Your task to perform on an android device: add a contact in the contacts app Image 0: 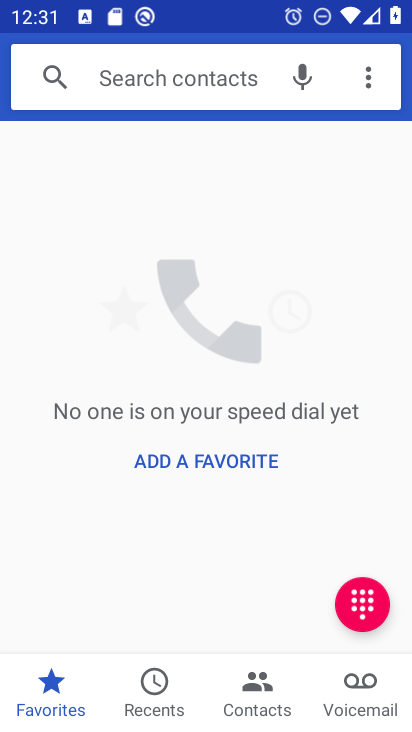
Step 0: press home button
Your task to perform on an android device: add a contact in the contacts app Image 1: 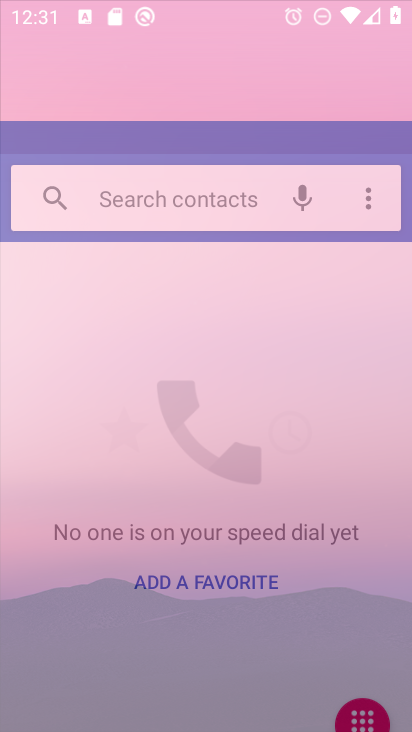
Step 1: click (178, 588)
Your task to perform on an android device: add a contact in the contacts app Image 2: 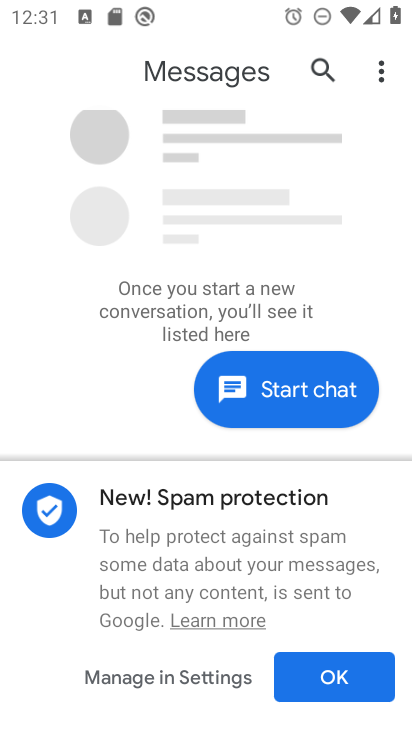
Step 2: press home button
Your task to perform on an android device: add a contact in the contacts app Image 3: 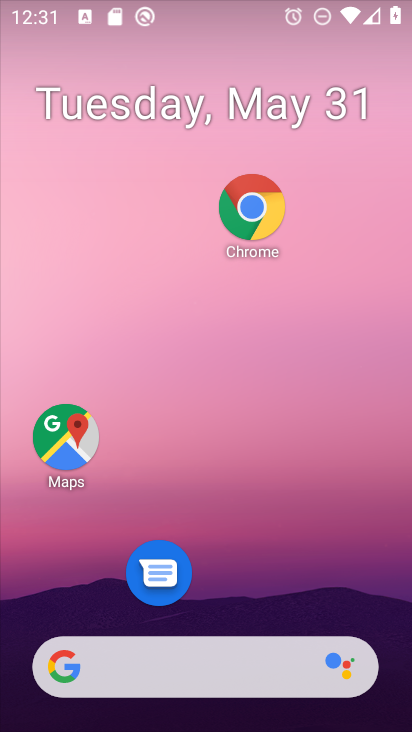
Step 3: drag from (204, 634) to (262, 42)
Your task to perform on an android device: add a contact in the contacts app Image 4: 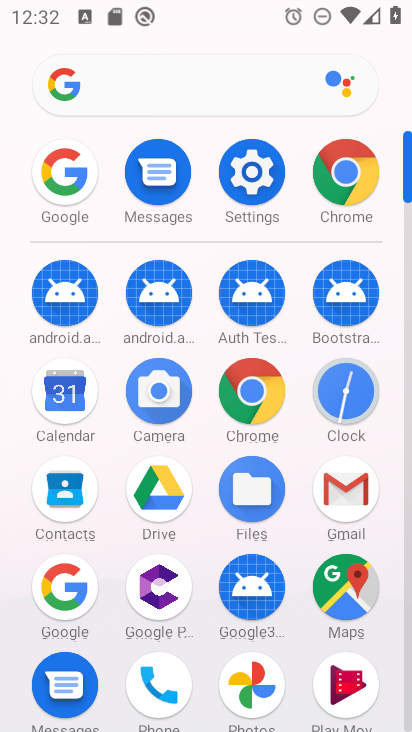
Step 4: click (59, 493)
Your task to perform on an android device: add a contact in the contacts app Image 5: 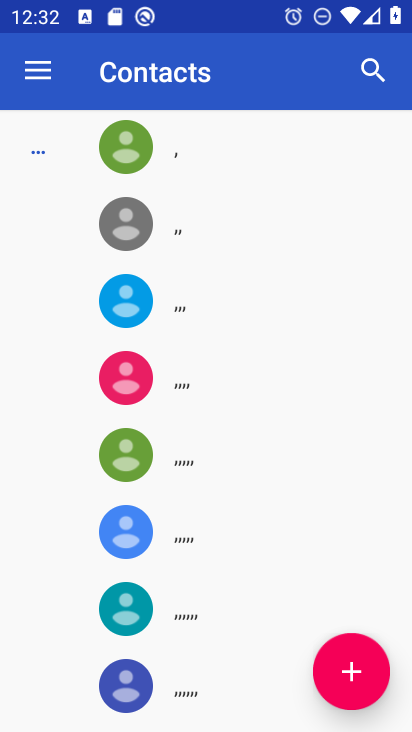
Step 5: click (367, 665)
Your task to perform on an android device: add a contact in the contacts app Image 6: 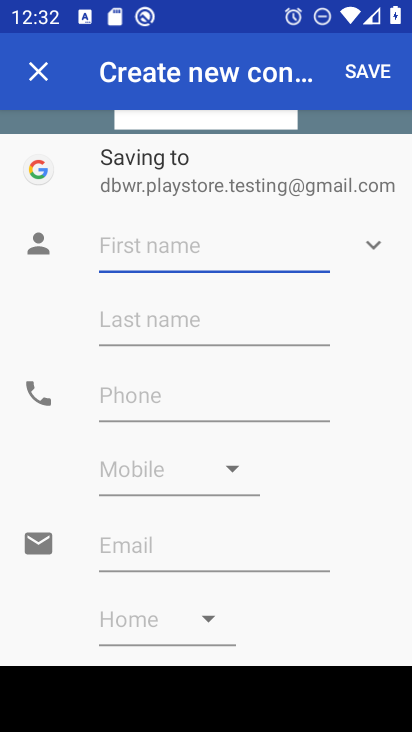
Step 6: type "ugigfgi"
Your task to perform on an android device: add a contact in the contacts app Image 7: 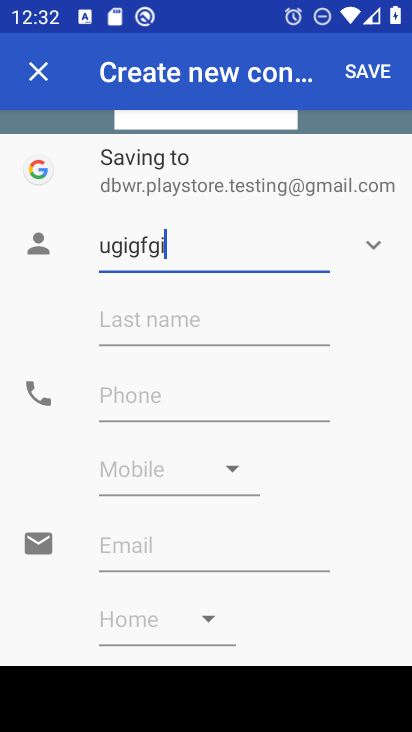
Step 7: click (235, 419)
Your task to perform on an android device: add a contact in the contacts app Image 8: 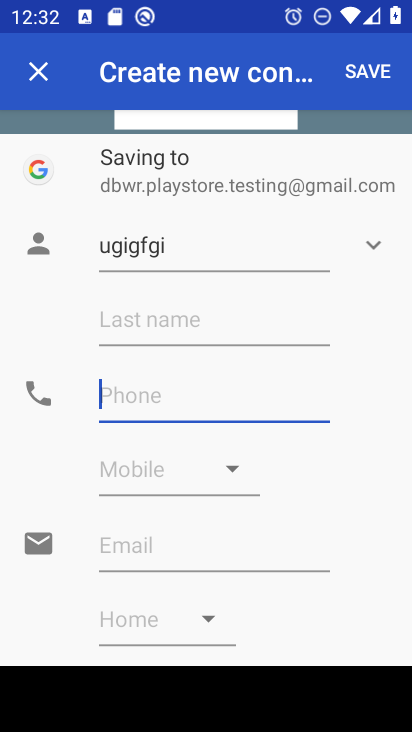
Step 8: type "76875756"
Your task to perform on an android device: add a contact in the contacts app Image 9: 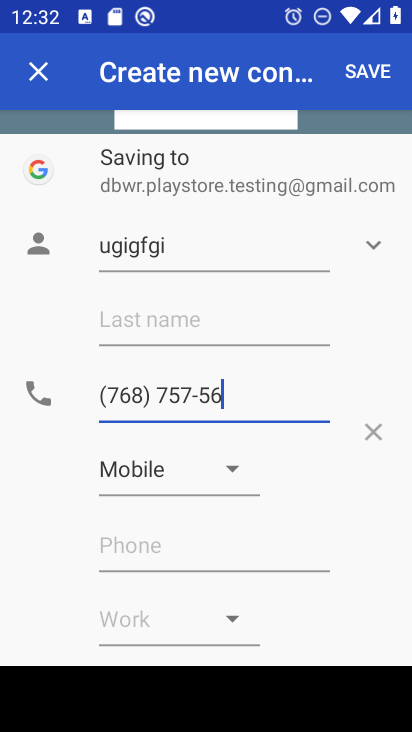
Step 9: click (353, 97)
Your task to perform on an android device: add a contact in the contacts app Image 10: 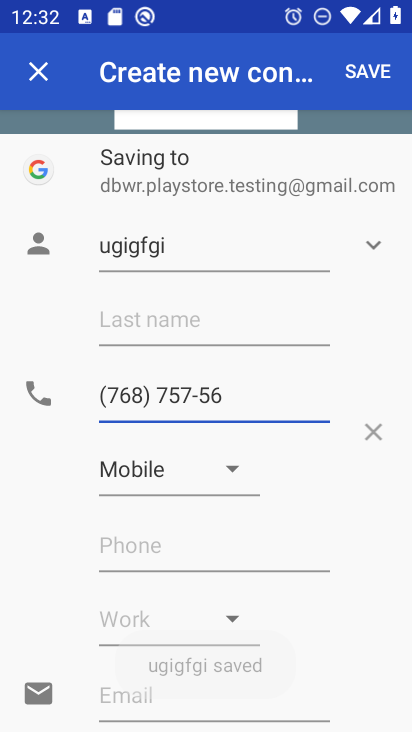
Step 10: click (377, 66)
Your task to perform on an android device: add a contact in the contacts app Image 11: 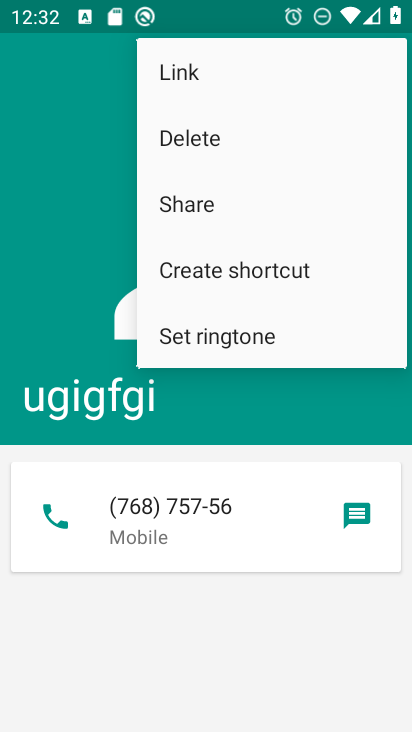
Step 11: task complete